Your task to perform on an android device: turn off javascript in the chrome app Image 0: 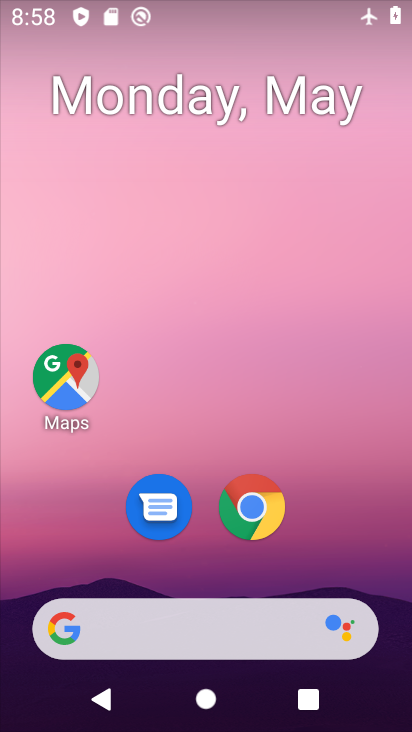
Step 0: click (247, 511)
Your task to perform on an android device: turn off javascript in the chrome app Image 1: 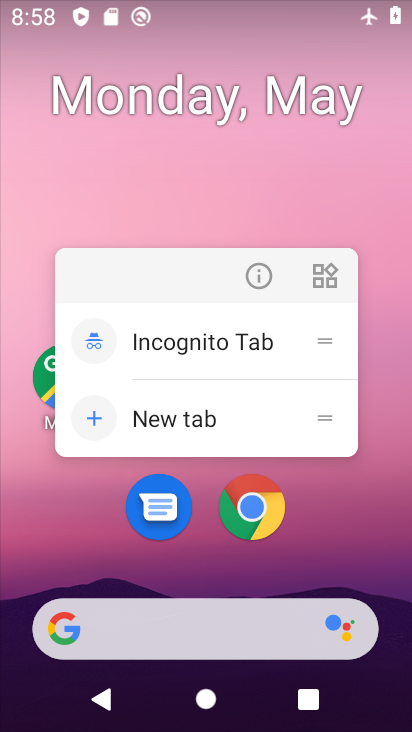
Step 1: click (248, 514)
Your task to perform on an android device: turn off javascript in the chrome app Image 2: 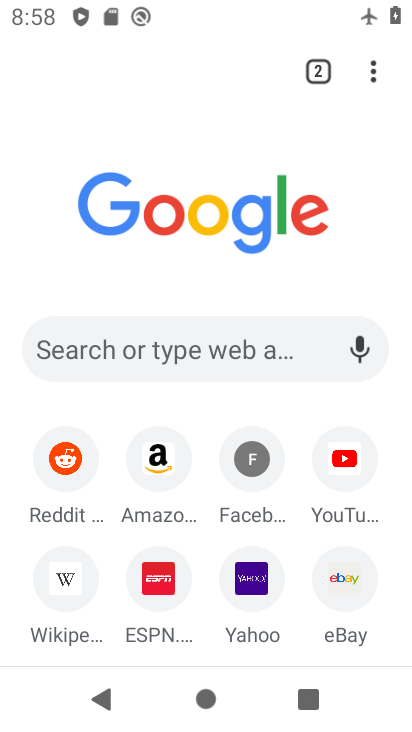
Step 2: click (374, 75)
Your task to perform on an android device: turn off javascript in the chrome app Image 3: 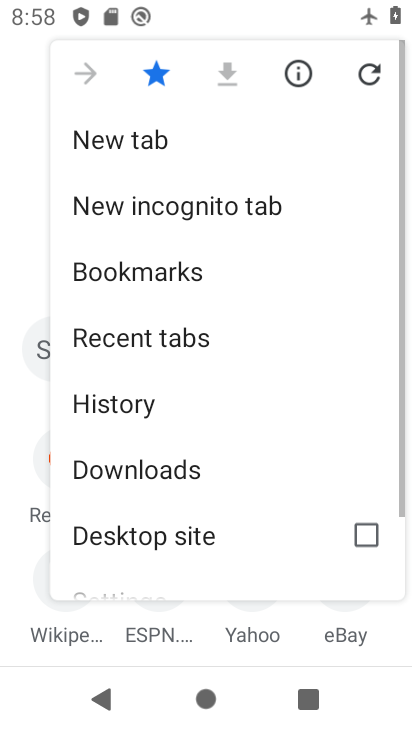
Step 3: drag from (148, 518) to (196, 198)
Your task to perform on an android device: turn off javascript in the chrome app Image 4: 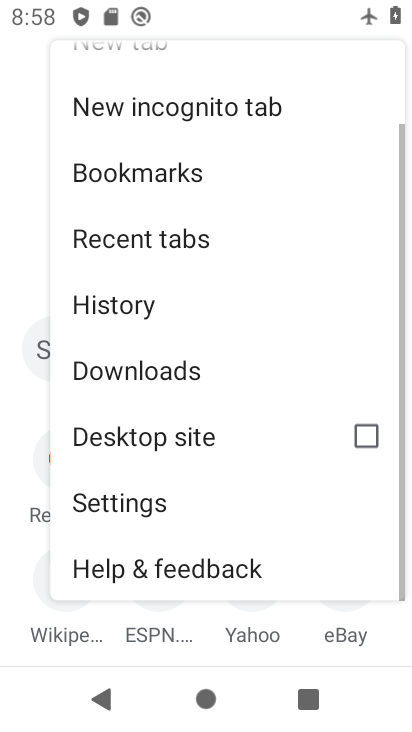
Step 4: click (132, 491)
Your task to perform on an android device: turn off javascript in the chrome app Image 5: 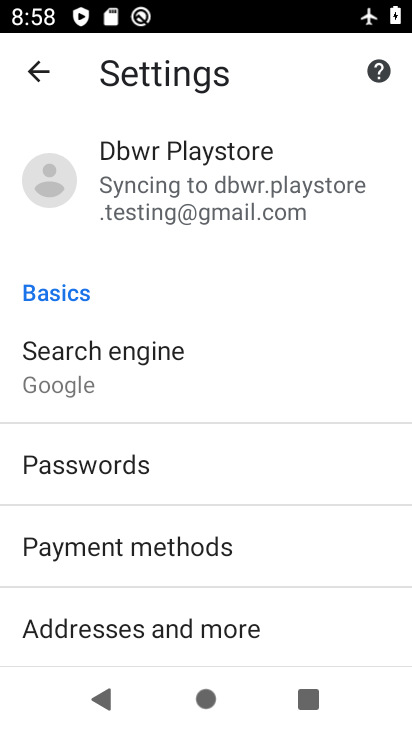
Step 5: drag from (143, 521) to (183, 254)
Your task to perform on an android device: turn off javascript in the chrome app Image 6: 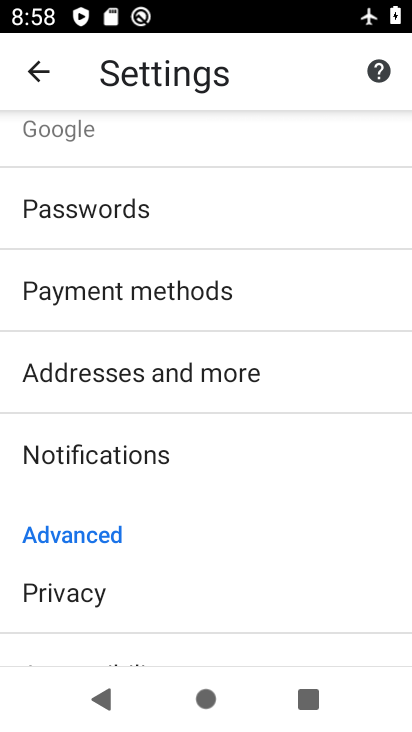
Step 6: drag from (162, 469) to (210, 183)
Your task to perform on an android device: turn off javascript in the chrome app Image 7: 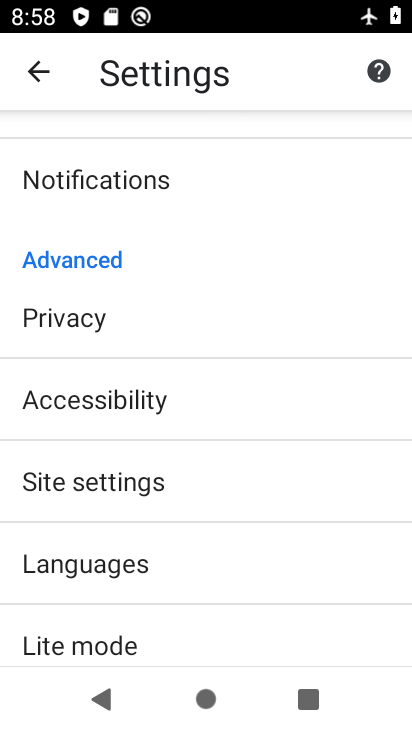
Step 7: click (98, 481)
Your task to perform on an android device: turn off javascript in the chrome app Image 8: 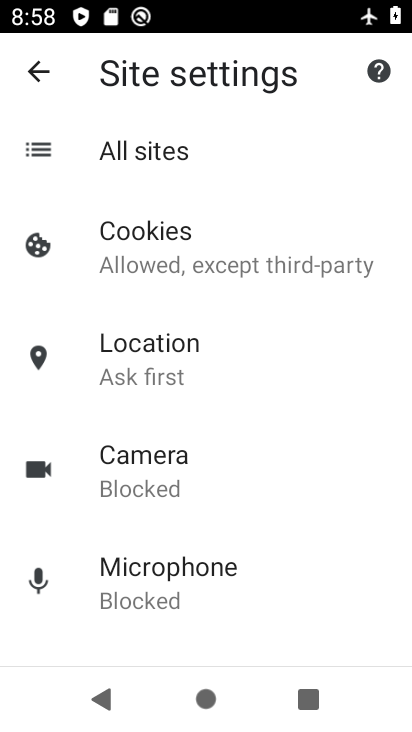
Step 8: drag from (115, 560) to (169, 280)
Your task to perform on an android device: turn off javascript in the chrome app Image 9: 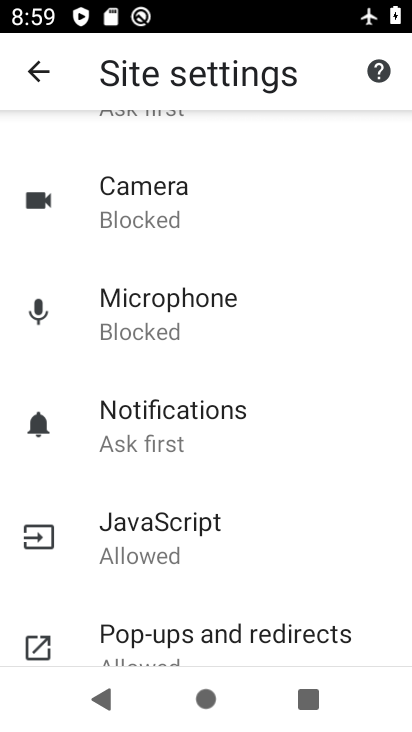
Step 9: click (138, 526)
Your task to perform on an android device: turn off javascript in the chrome app Image 10: 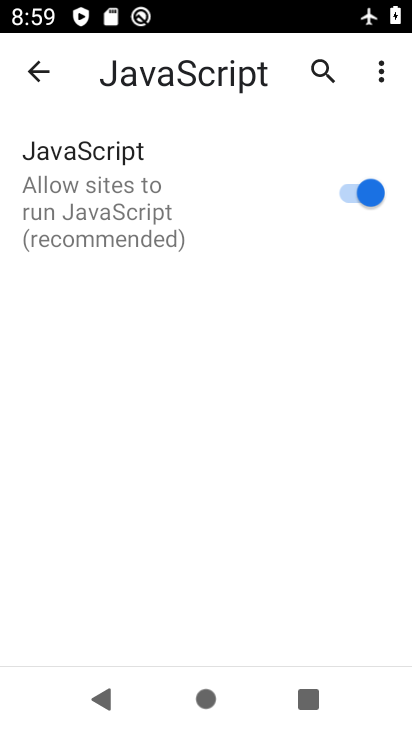
Step 10: click (334, 206)
Your task to perform on an android device: turn off javascript in the chrome app Image 11: 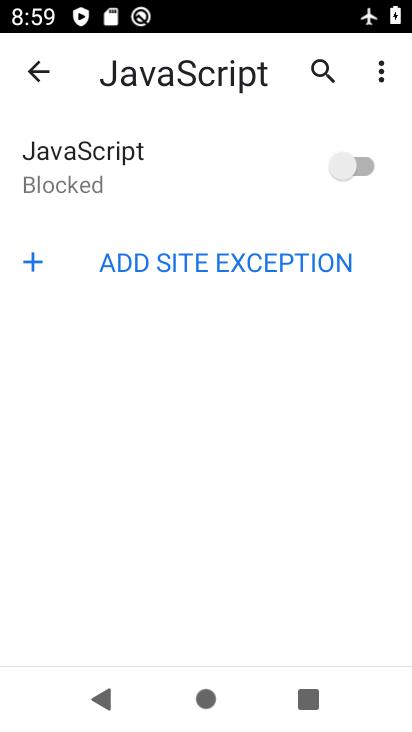
Step 11: task complete